Your task to perform on an android device: Open the calendar and show me this week's events? Image 0: 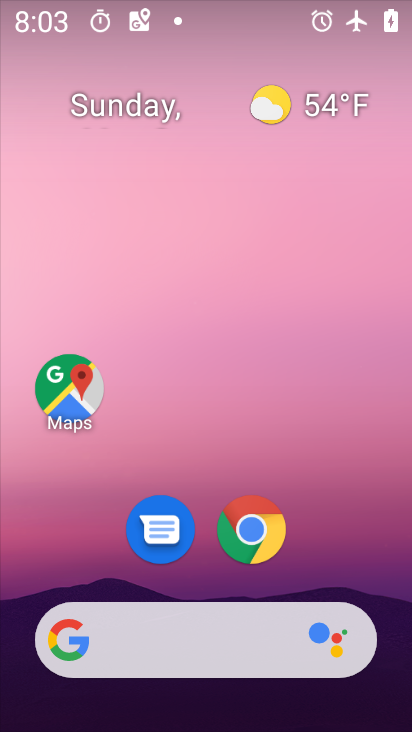
Step 0: drag from (305, 591) to (343, 183)
Your task to perform on an android device: Open the calendar and show me this week's events? Image 1: 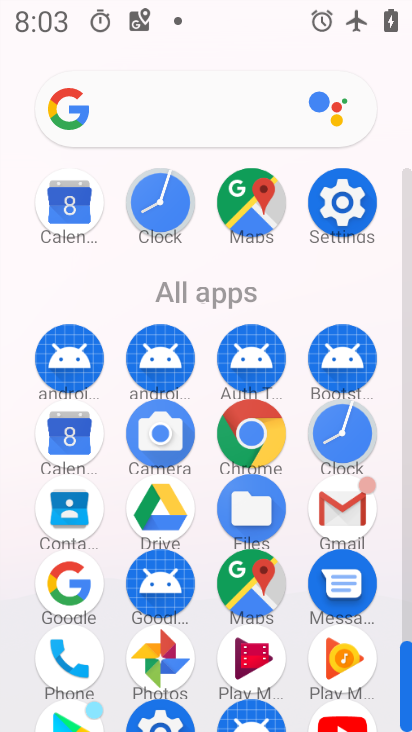
Step 1: click (76, 438)
Your task to perform on an android device: Open the calendar and show me this week's events? Image 2: 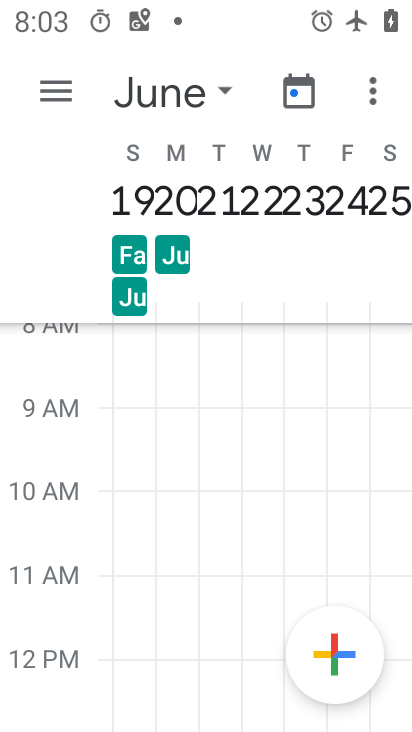
Step 2: click (49, 86)
Your task to perform on an android device: Open the calendar and show me this week's events? Image 3: 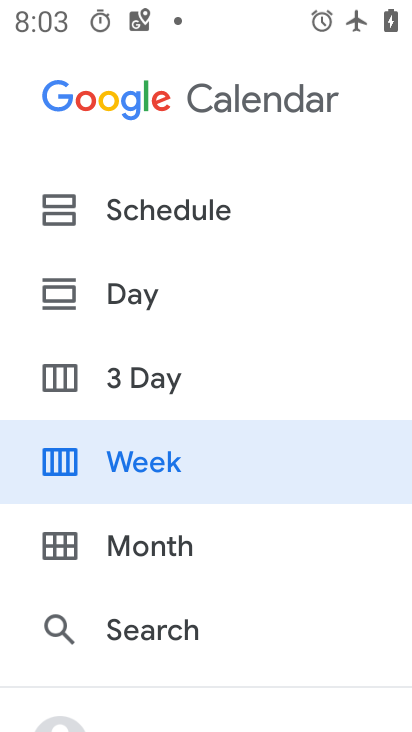
Step 3: drag from (161, 592) to (208, 138)
Your task to perform on an android device: Open the calendar and show me this week's events? Image 4: 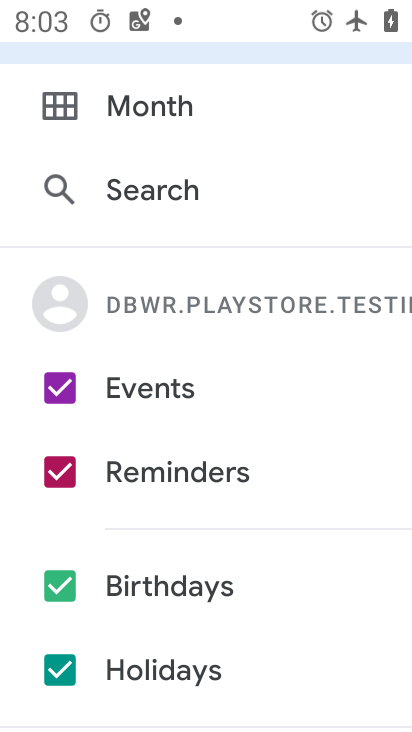
Step 4: click (167, 472)
Your task to perform on an android device: Open the calendar and show me this week's events? Image 5: 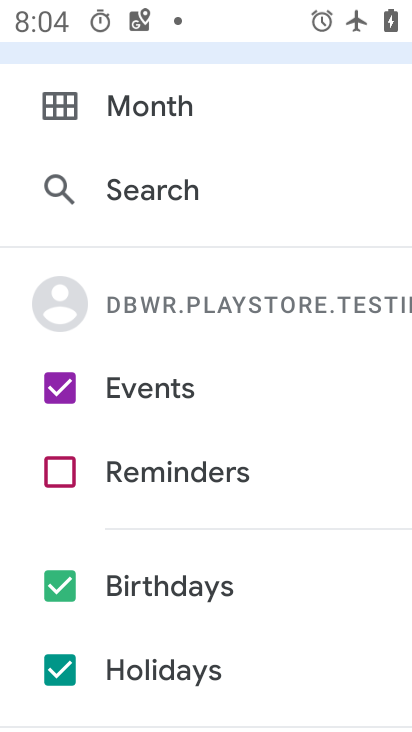
Step 5: click (162, 580)
Your task to perform on an android device: Open the calendar and show me this week's events? Image 6: 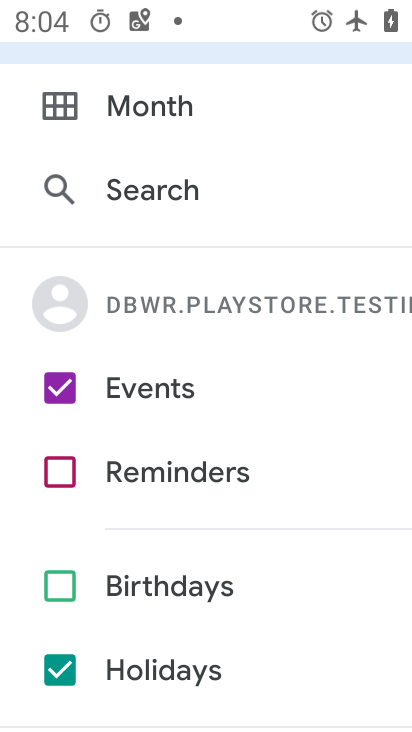
Step 6: drag from (171, 601) to (213, 342)
Your task to perform on an android device: Open the calendar and show me this week's events? Image 7: 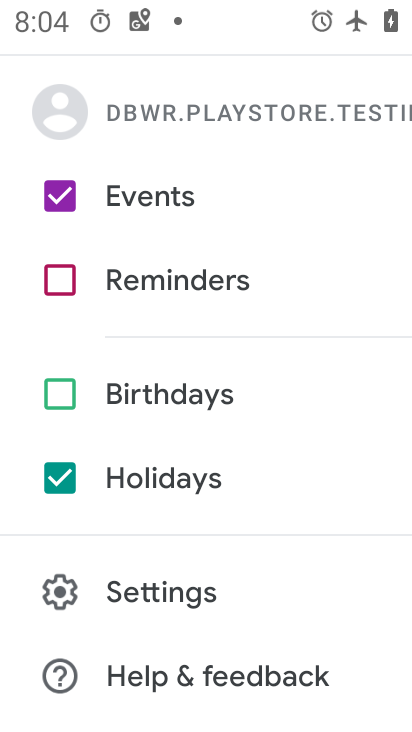
Step 7: click (142, 471)
Your task to perform on an android device: Open the calendar and show me this week's events? Image 8: 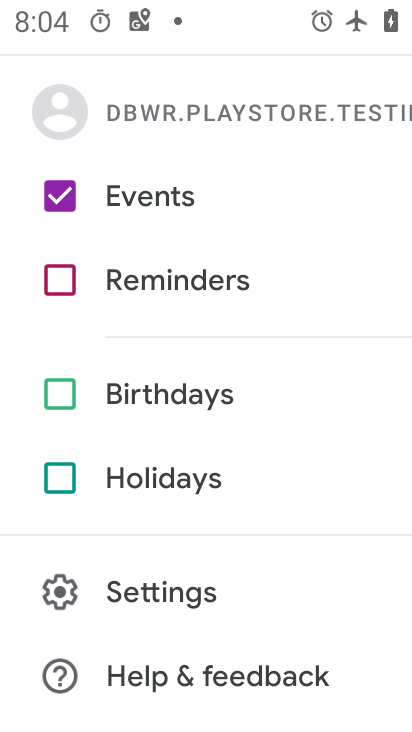
Step 8: drag from (228, 188) to (228, 631)
Your task to perform on an android device: Open the calendar and show me this week's events? Image 9: 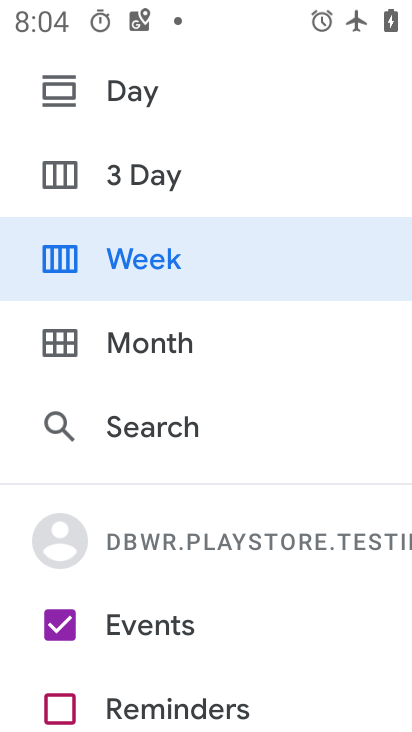
Step 9: click (138, 271)
Your task to perform on an android device: Open the calendar and show me this week's events? Image 10: 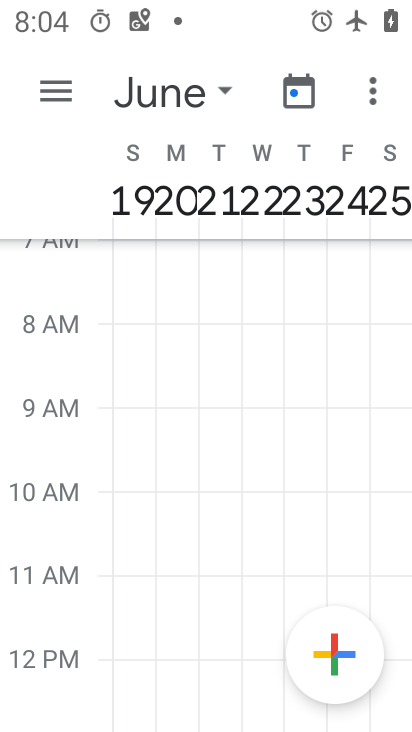
Step 10: task complete